Your task to perform on an android device: Open calendar and show me the first week of next month Image 0: 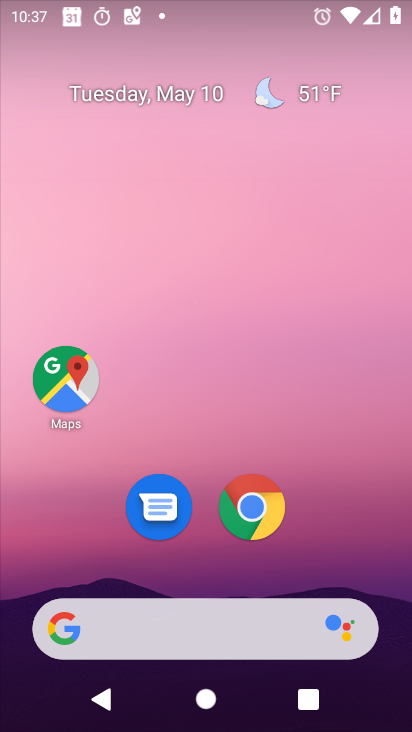
Step 0: click (142, 85)
Your task to perform on an android device: Open calendar and show me the first week of next month Image 1: 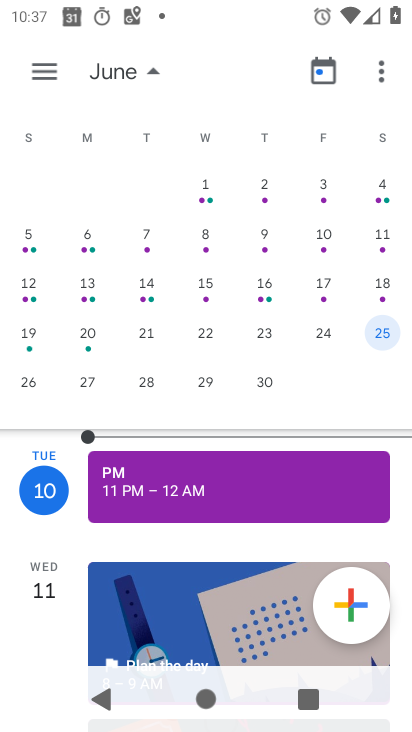
Step 1: click (210, 192)
Your task to perform on an android device: Open calendar and show me the first week of next month Image 2: 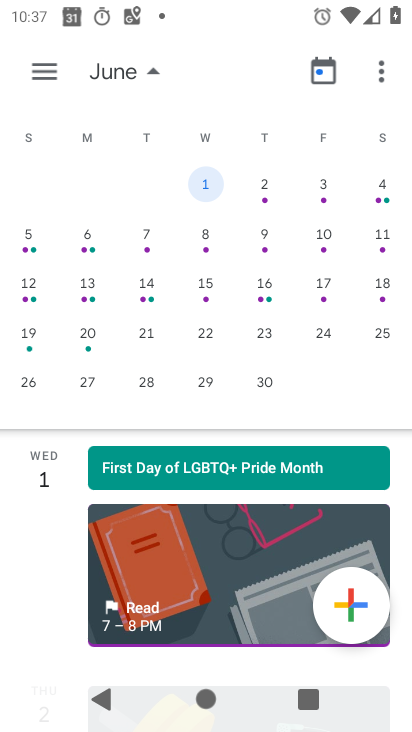
Step 2: task complete